Your task to perform on an android device: turn on the 12-hour format for clock Image 0: 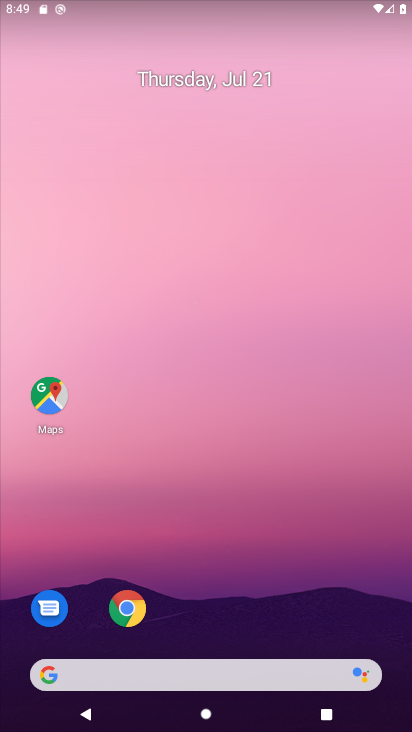
Step 0: click (115, 157)
Your task to perform on an android device: turn on the 12-hour format for clock Image 1: 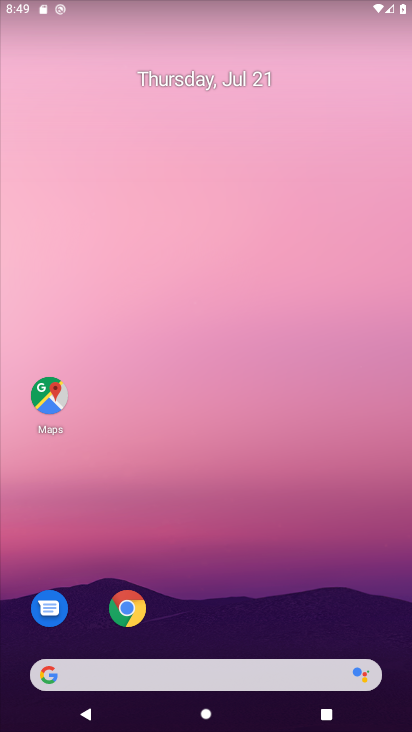
Step 1: drag from (196, 619) to (169, 203)
Your task to perform on an android device: turn on the 12-hour format for clock Image 2: 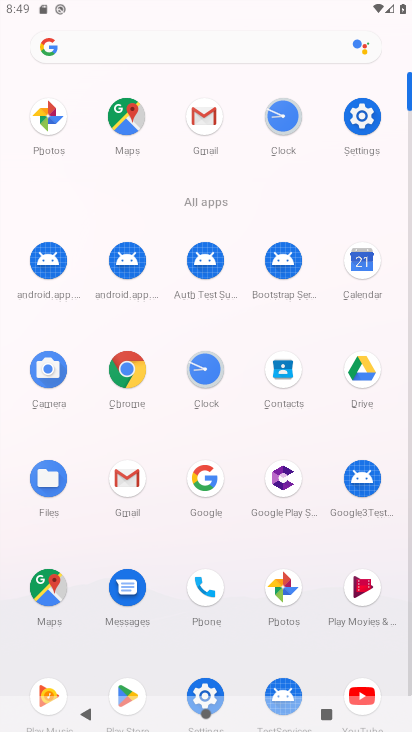
Step 2: click (360, 127)
Your task to perform on an android device: turn on the 12-hour format for clock Image 3: 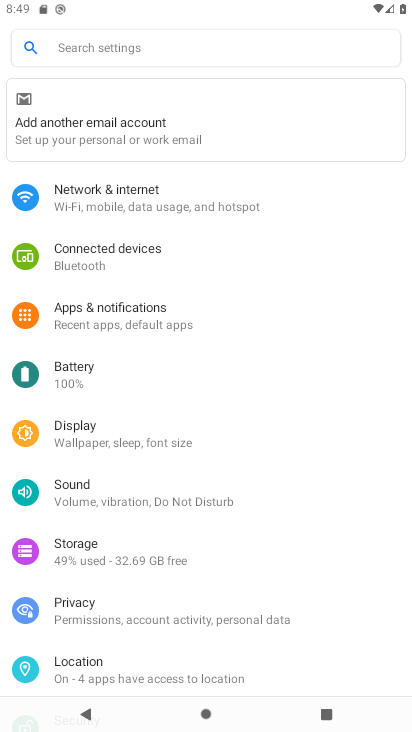
Step 3: press back button
Your task to perform on an android device: turn on the 12-hour format for clock Image 4: 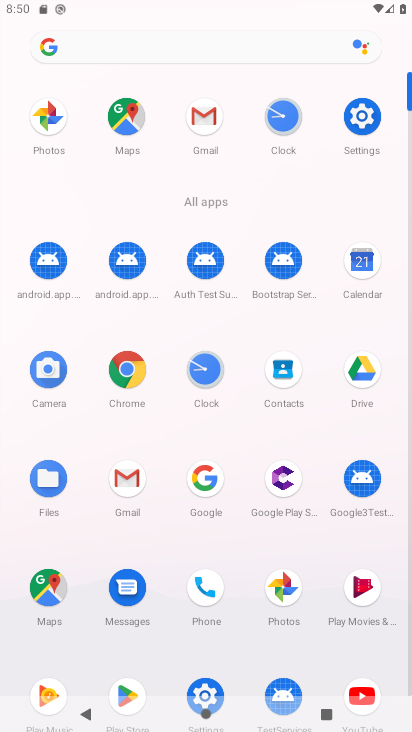
Step 4: click (206, 377)
Your task to perform on an android device: turn on the 12-hour format for clock Image 5: 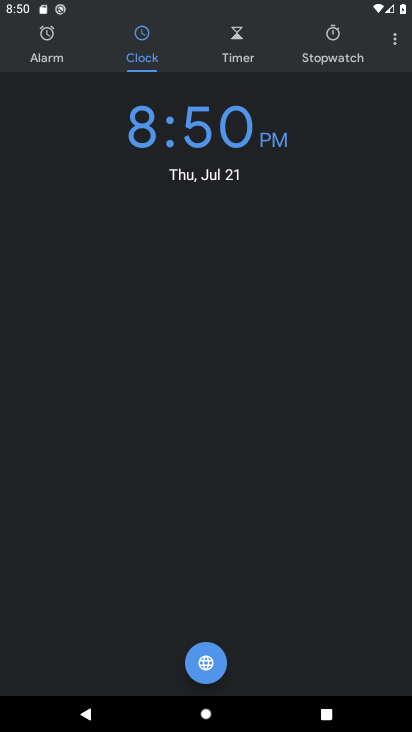
Step 5: click (405, 39)
Your task to perform on an android device: turn on the 12-hour format for clock Image 6: 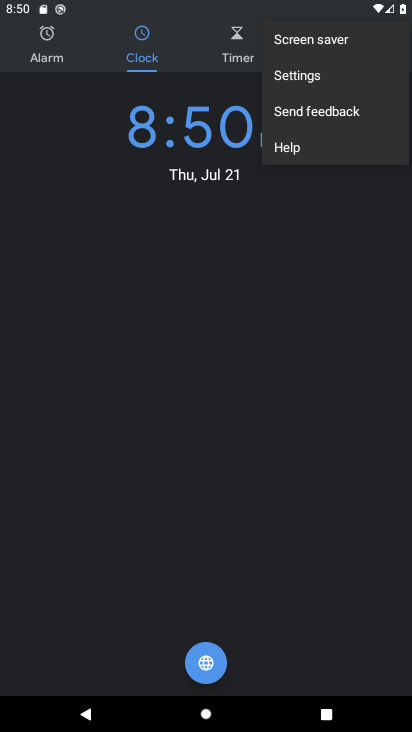
Step 6: click (300, 89)
Your task to perform on an android device: turn on the 12-hour format for clock Image 7: 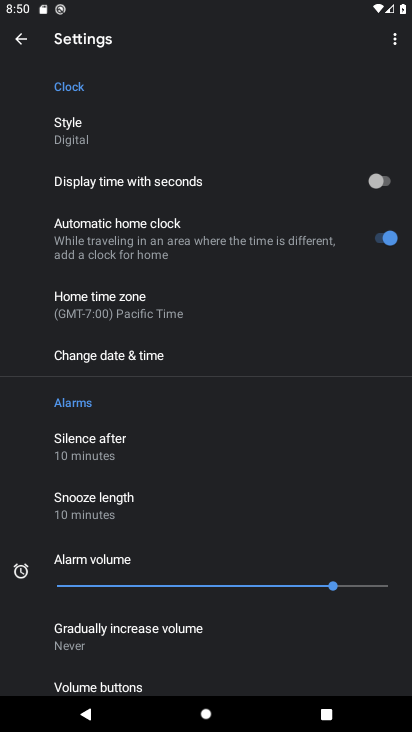
Step 7: drag from (139, 595) to (155, 254)
Your task to perform on an android device: turn on the 12-hour format for clock Image 8: 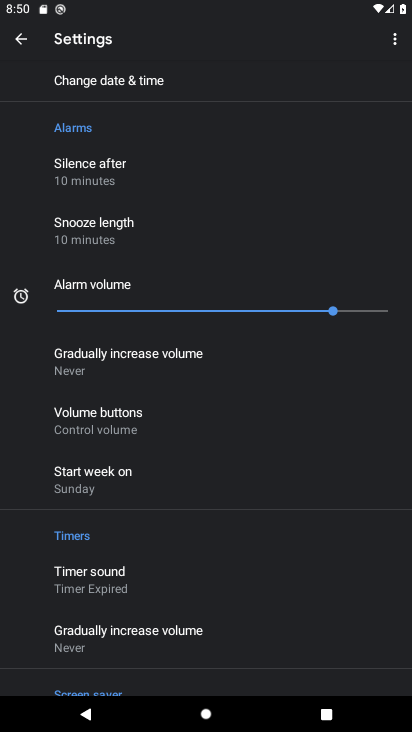
Step 8: click (140, 84)
Your task to perform on an android device: turn on the 12-hour format for clock Image 9: 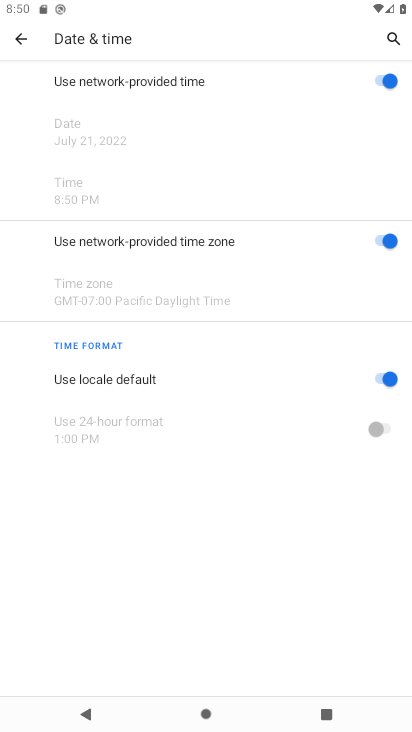
Step 9: task complete